Your task to perform on an android device: show emergency info Image 0: 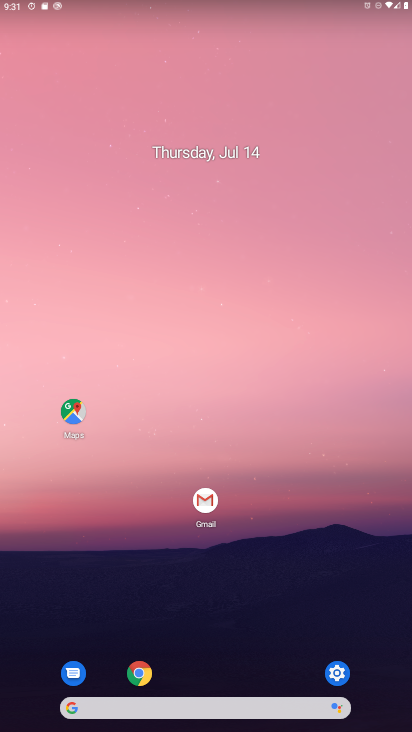
Step 0: press home button
Your task to perform on an android device: show emergency info Image 1: 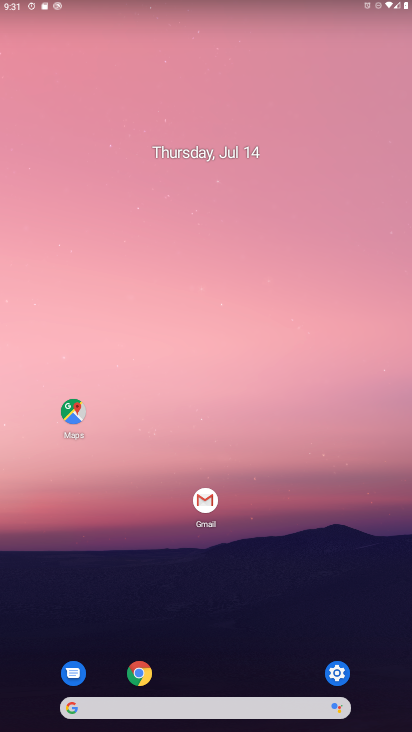
Step 1: click (330, 668)
Your task to perform on an android device: show emergency info Image 2: 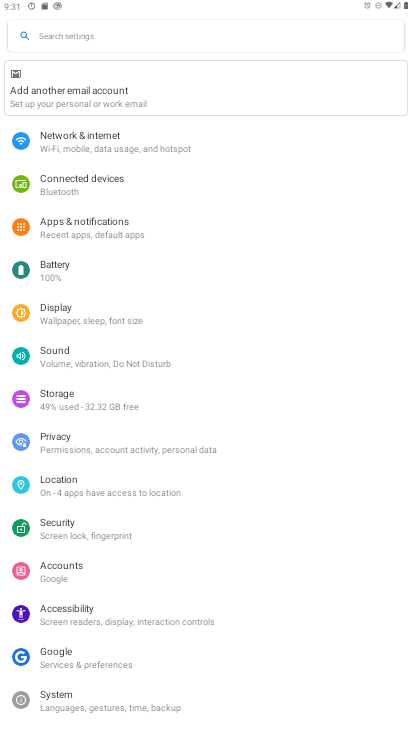
Step 2: click (75, 49)
Your task to perform on an android device: show emergency info Image 3: 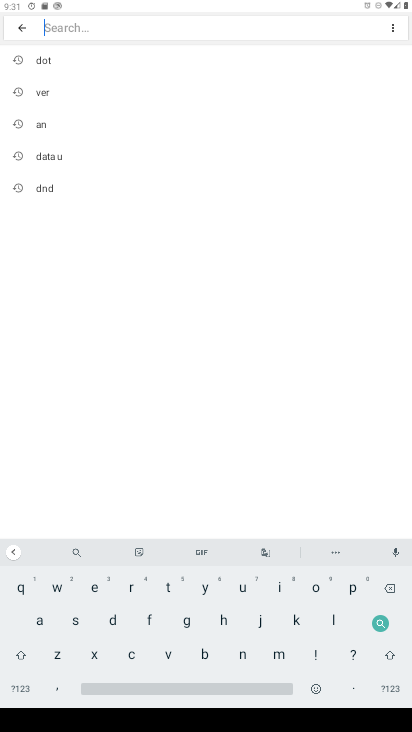
Step 3: click (90, 590)
Your task to perform on an android device: show emergency info Image 4: 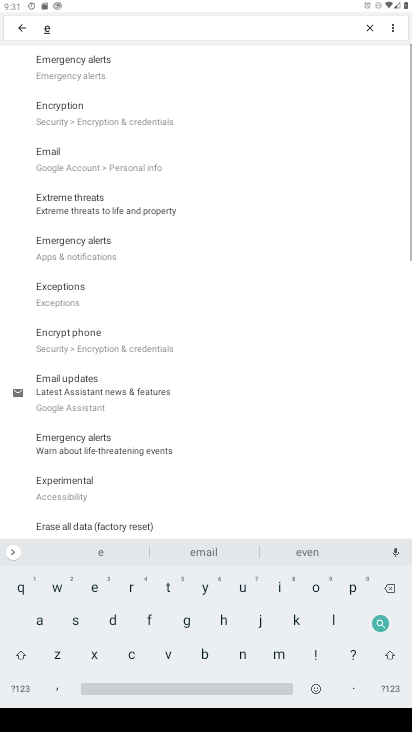
Step 4: click (280, 650)
Your task to perform on an android device: show emergency info Image 5: 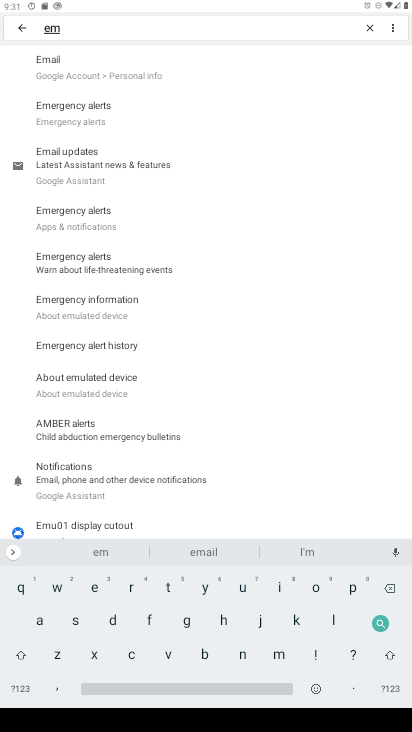
Step 5: click (117, 301)
Your task to perform on an android device: show emergency info Image 6: 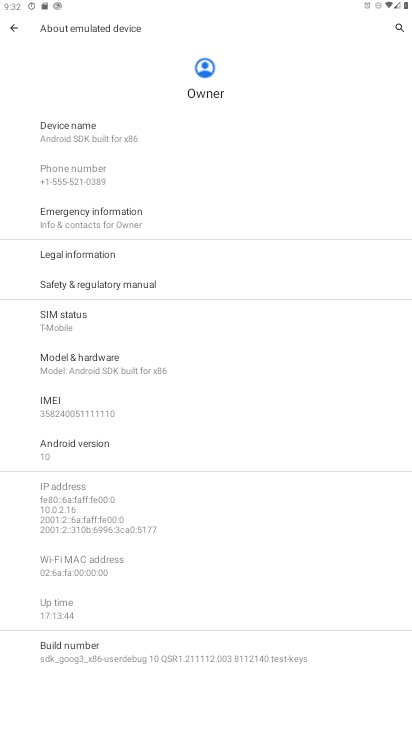
Step 6: task complete